Your task to perform on an android device: Show me popular videos on Youtube Image 0: 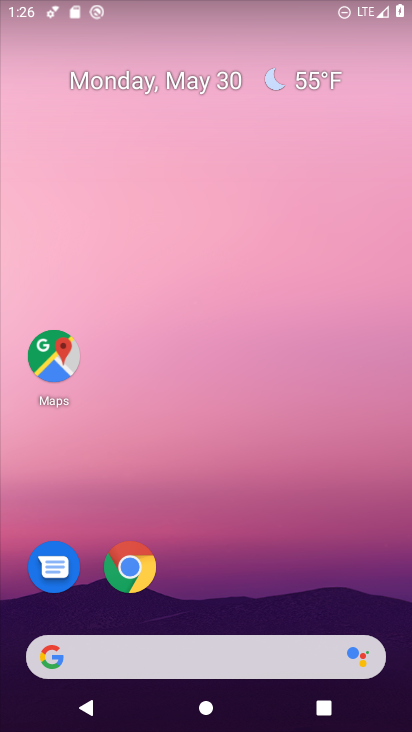
Step 0: drag from (216, 601) to (284, 52)
Your task to perform on an android device: Show me popular videos on Youtube Image 1: 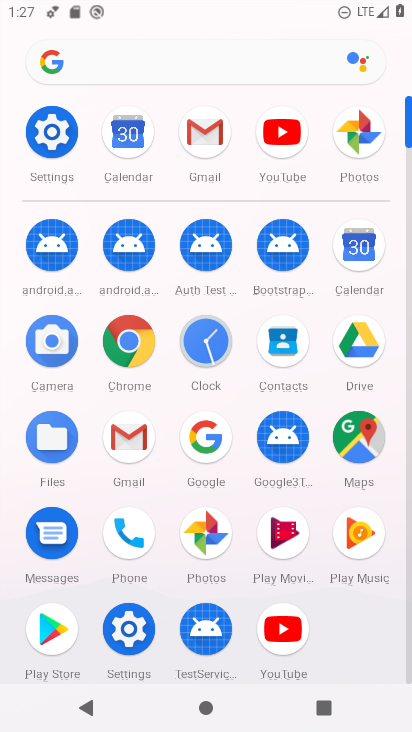
Step 1: click (282, 622)
Your task to perform on an android device: Show me popular videos on Youtube Image 2: 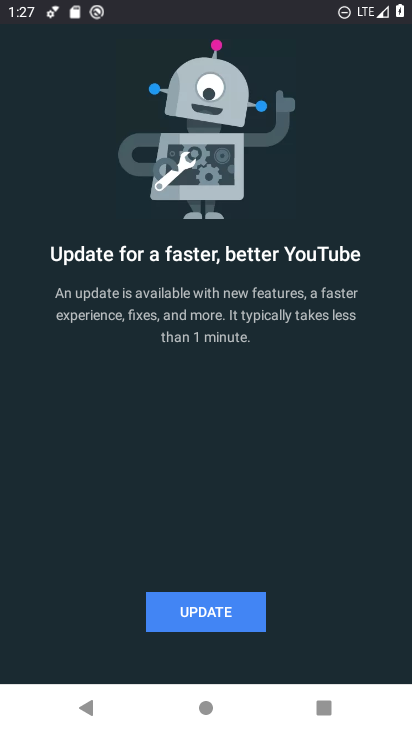
Step 2: click (214, 599)
Your task to perform on an android device: Show me popular videos on Youtube Image 3: 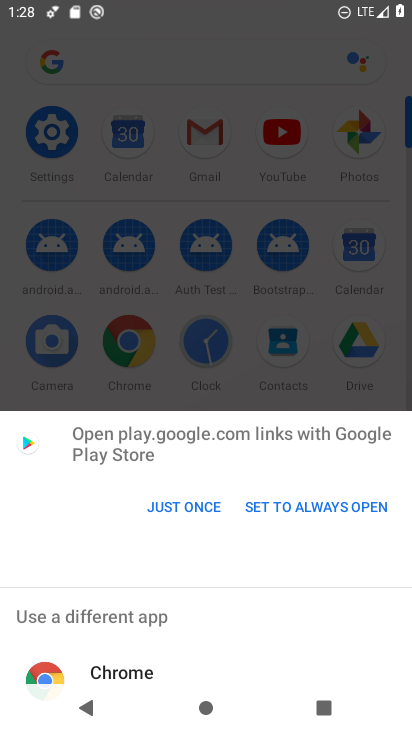
Step 3: click (178, 507)
Your task to perform on an android device: Show me popular videos on Youtube Image 4: 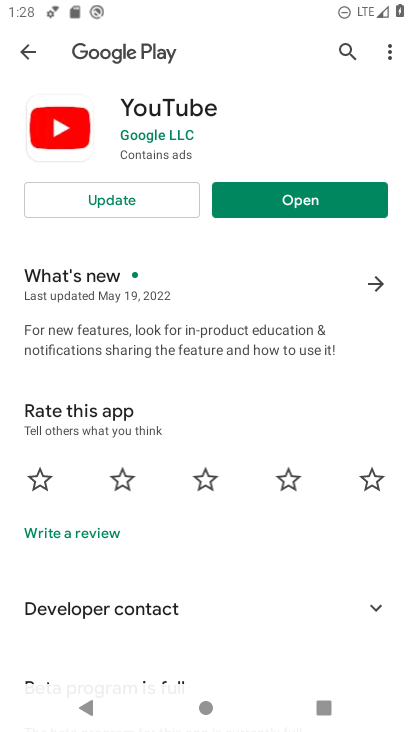
Step 4: click (115, 198)
Your task to perform on an android device: Show me popular videos on Youtube Image 5: 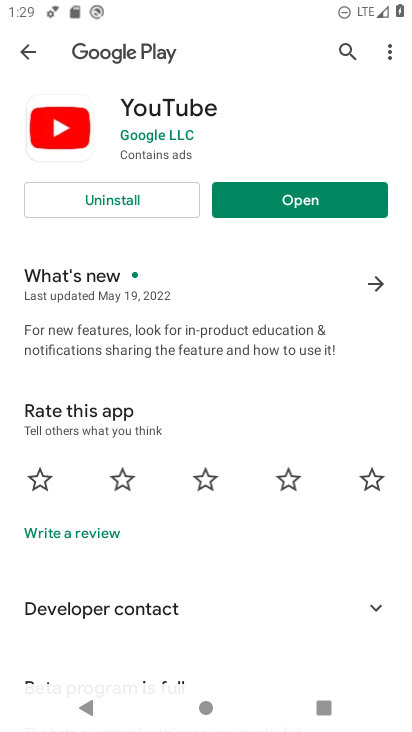
Step 5: click (304, 195)
Your task to perform on an android device: Show me popular videos on Youtube Image 6: 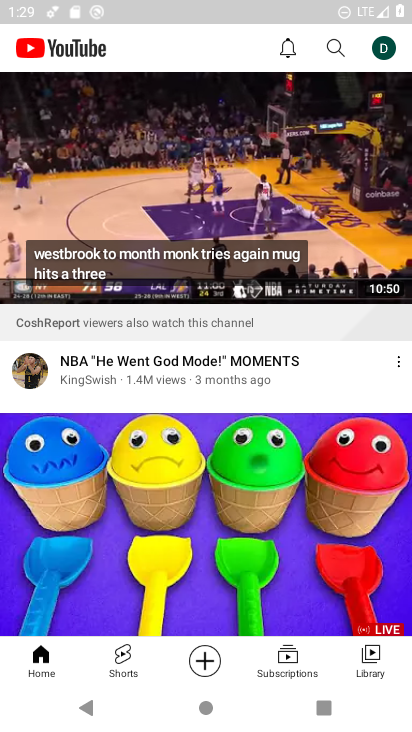
Step 6: click (384, 44)
Your task to perform on an android device: Show me popular videos on Youtube Image 7: 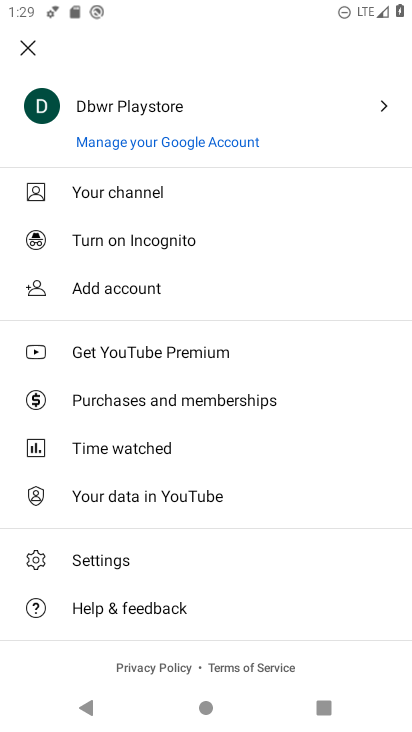
Step 7: click (20, 51)
Your task to perform on an android device: Show me popular videos on Youtube Image 8: 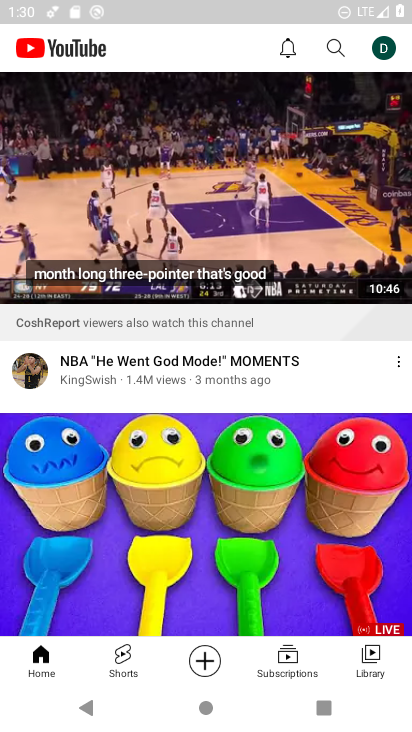
Step 8: drag from (174, 463) to (201, 120)
Your task to perform on an android device: Show me popular videos on Youtube Image 9: 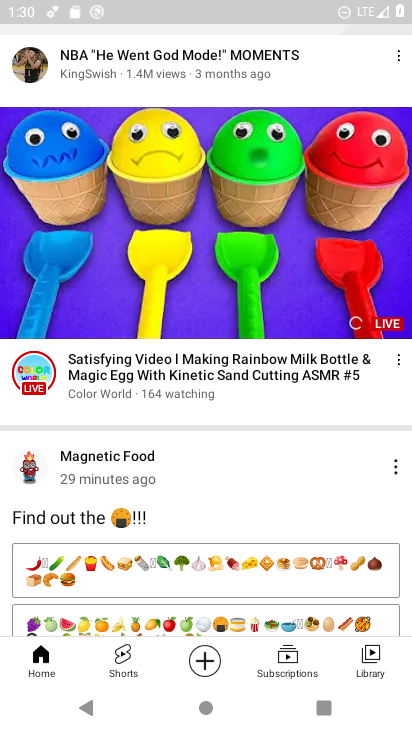
Step 9: drag from (158, 183) to (160, 596)
Your task to perform on an android device: Show me popular videos on Youtube Image 10: 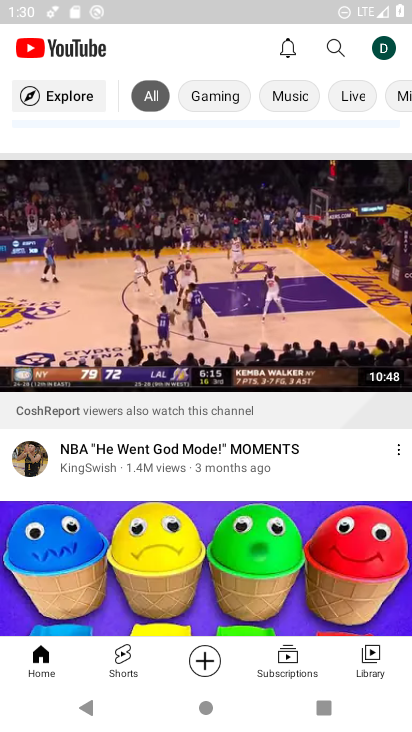
Step 10: click (44, 96)
Your task to perform on an android device: Show me popular videos on Youtube Image 11: 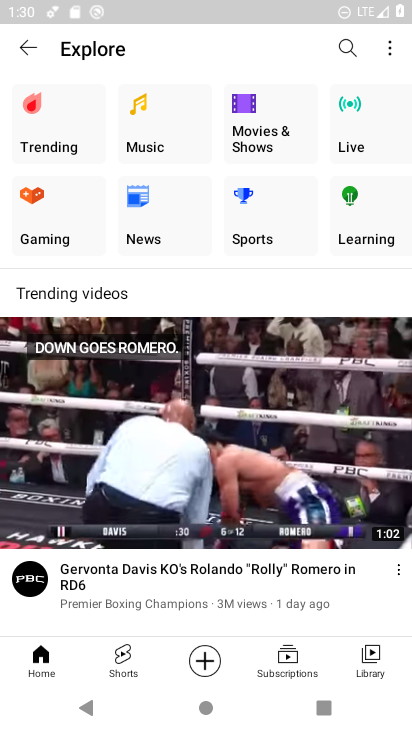
Step 11: click (51, 112)
Your task to perform on an android device: Show me popular videos on Youtube Image 12: 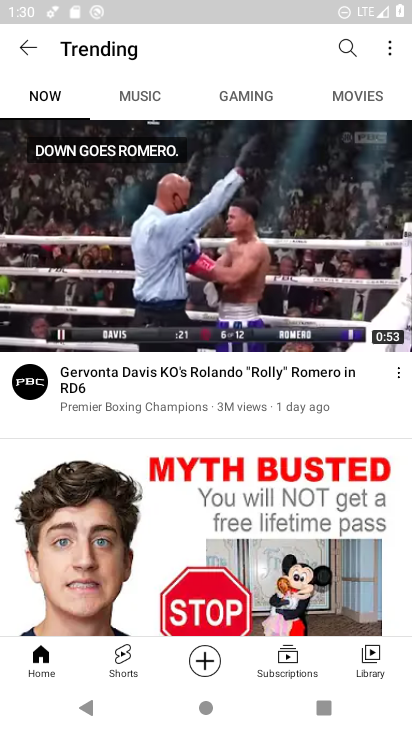
Step 12: task complete